Your task to perform on an android device: What's the weather like in Chicago? Image 0: 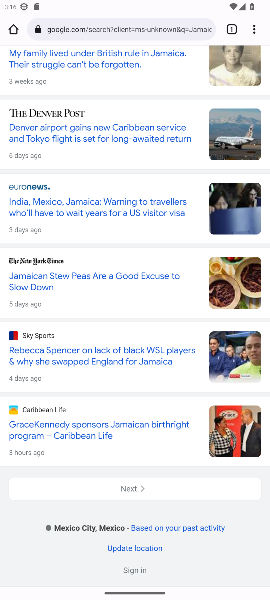
Step 0: press home button
Your task to perform on an android device: What's the weather like in Chicago? Image 1: 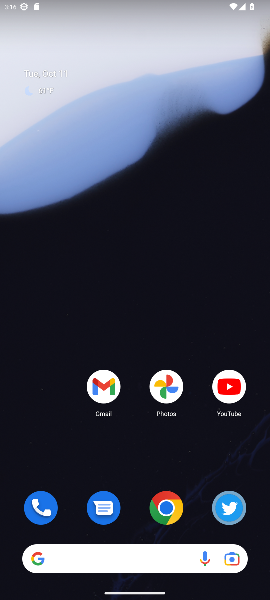
Step 1: click (174, 506)
Your task to perform on an android device: What's the weather like in Chicago? Image 2: 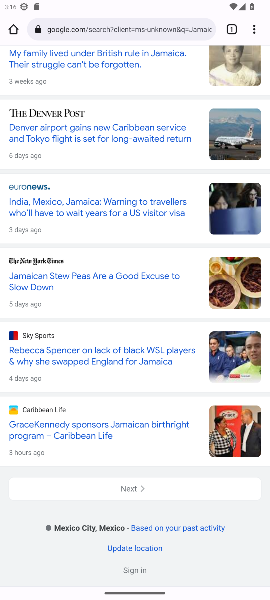
Step 2: click (134, 27)
Your task to perform on an android device: What's the weather like in Chicago? Image 3: 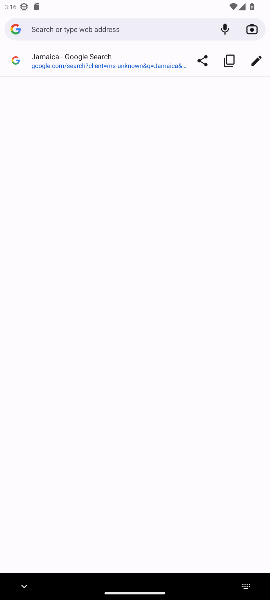
Step 3: type "weather like in Chicago"
Your task to perform on an android device: What's the weather like in Chicago? Image 4: 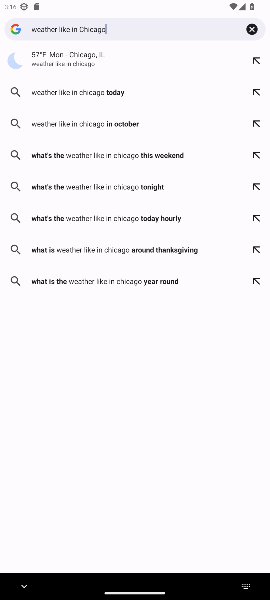
Step 4: click (92, 61)
Your task to perform on an android device: What's the weather like in Chicago? Image 5: 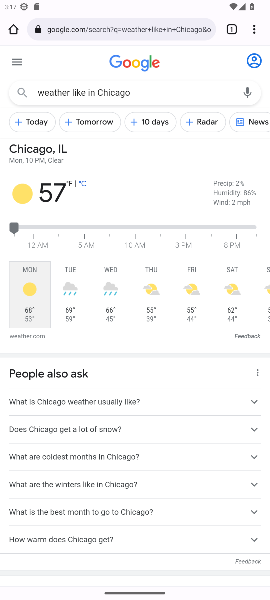
Step 5: task complete